Your task to perform on an android device: open the mobile data screen to see how much data has been used Image 0: 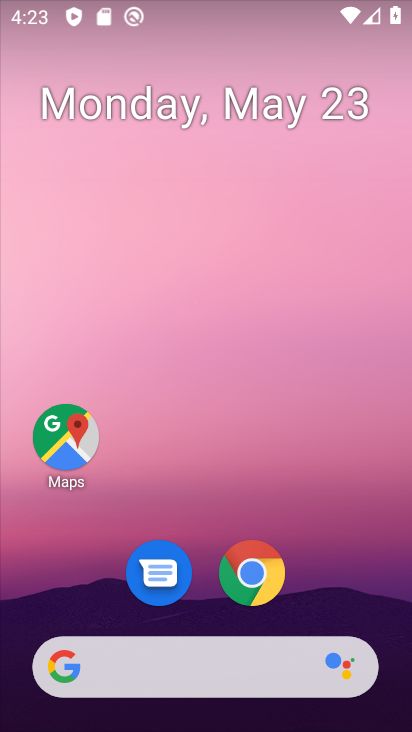
Step 0: drag from (235, 716) to (225, 111)
Your task to perform on an android device: open the mobile data screen to see how much data has been used Image 1: 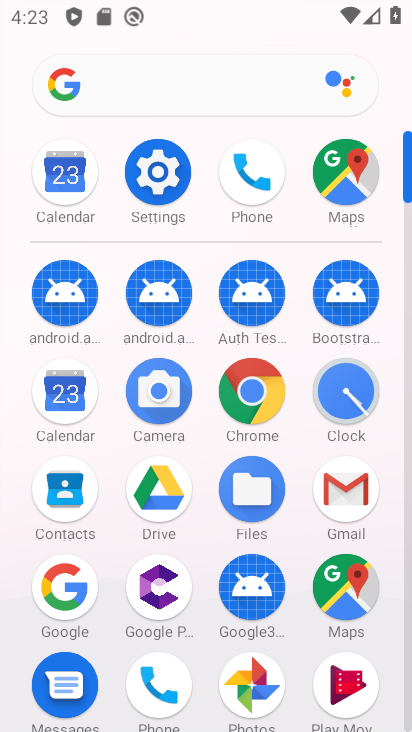
Step 1: click (157, 172)
Your task to perform on an android device: open the mobile data screen to see how much data has been used Image 2: 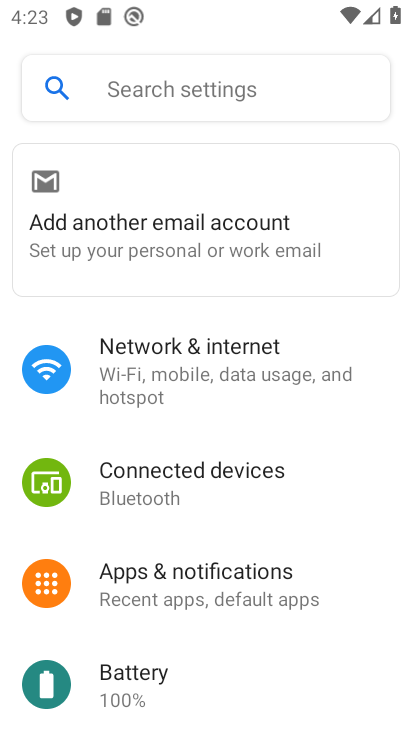
Step 2: drag from (158, 671) to (155, 378)
Your task to perform on an android device: open the mobile data screen to see how much data has been used Image 3: 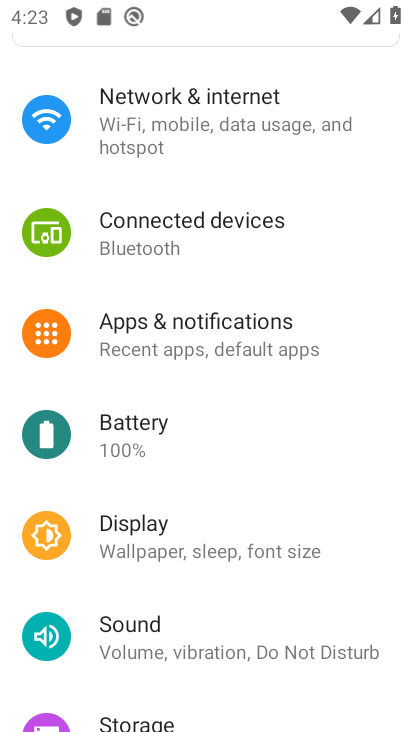
Step 3: click (167, 120)
Your task to perform on an android device: open the mobile data screen to see how much data has been used Image 4: 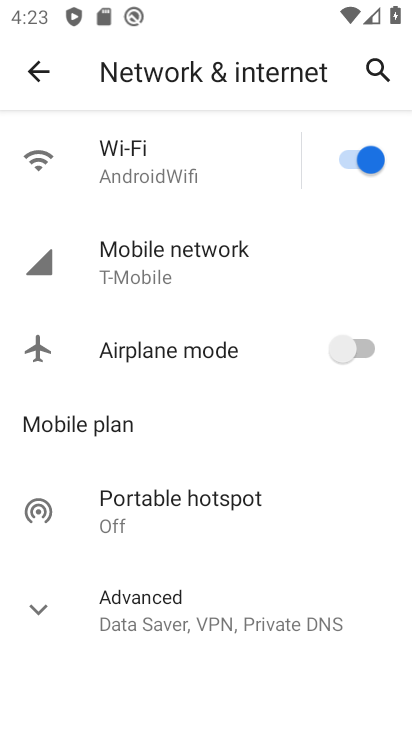
Step 4: click (146, 257)
Your task to perform on an android device: open the mobile data screen to see how much data has been used Image 5: 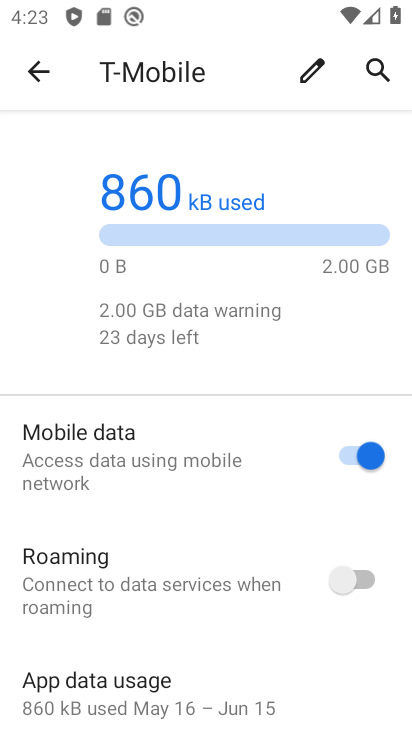
Step 5: drag from (114, 625) to (123, 229)
Your task to perform on an android device: open the mobile data screen to see how much data has been used Image 6: 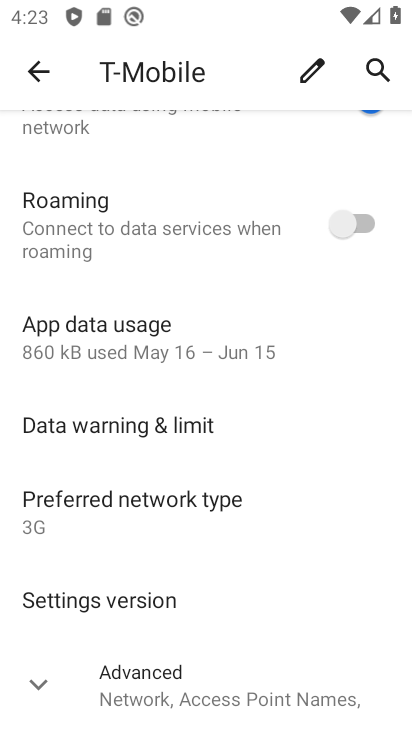
Step 6: click (146, 338)
Your task to perform on an android device: open the mobile data screen to see how much data has been used Image 7: 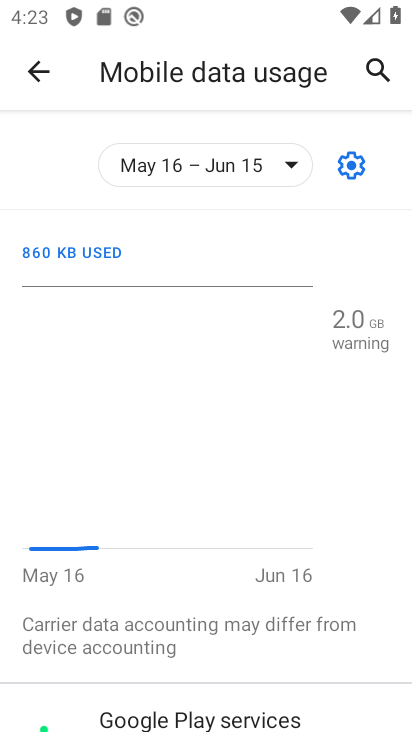
Step 7: task complete